Your task to perform on an android device: turn off airplane mode Image 0: 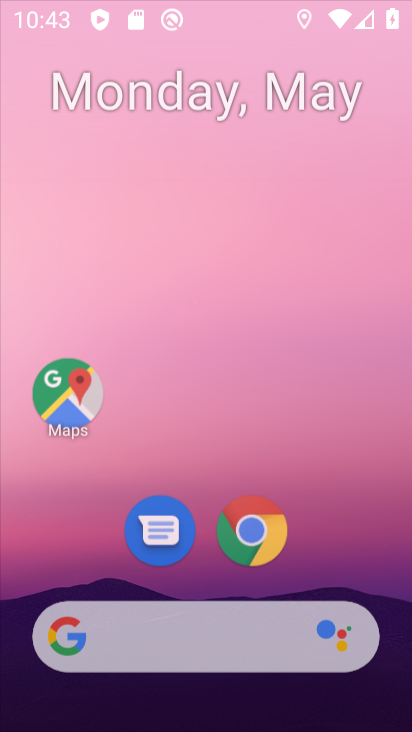
Step 0: press home button
Your task to perform on an android device: turn off airplane mode Image 1: 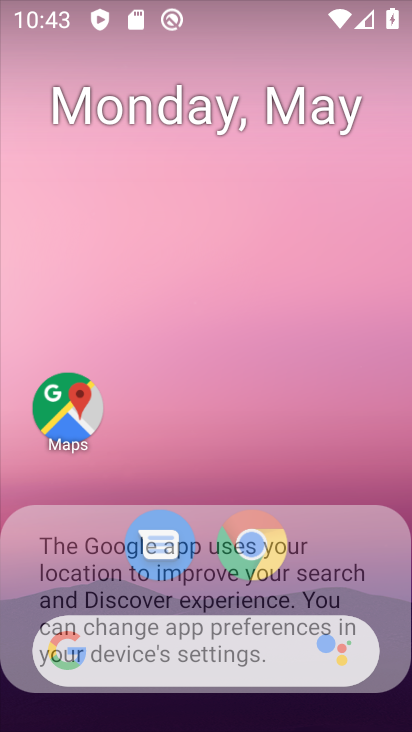
Step 1: drag from (223, 689) to (271, 56)
Your task to perform on an android device: turn off airplane mode Image 2: 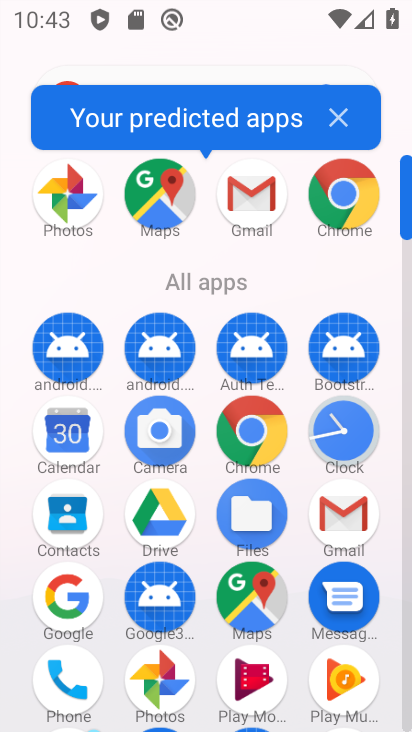
Step 2: drag from (200, 564) to (159, 356)
Your task to perform on an android device: turn off airplane mode Image 3: 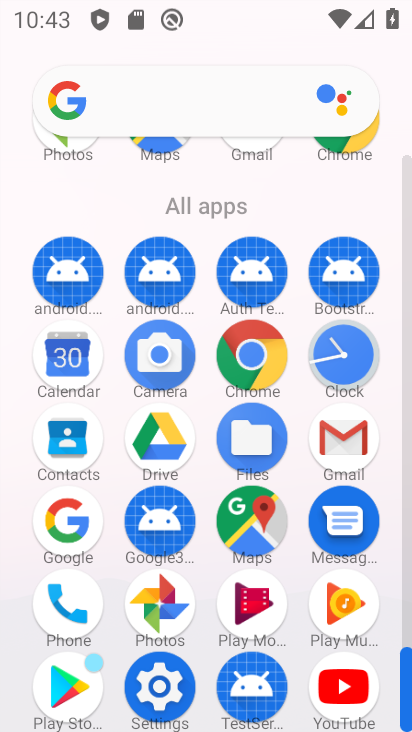
Step 3: click (171, 674)
Your task to perform on an android device: turn off airplane mode Image 4: 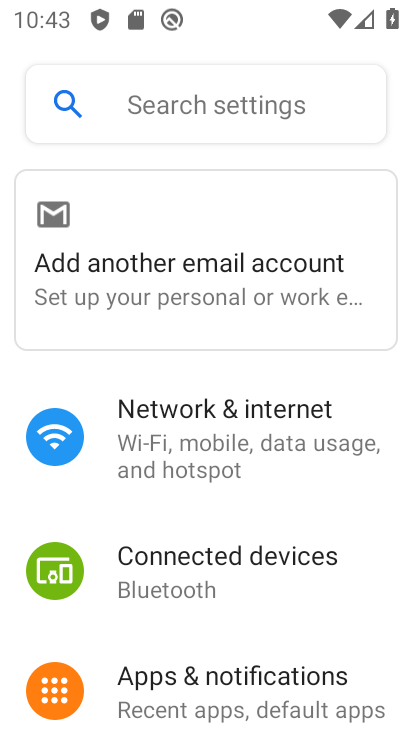
Step 4: click (204, 461)
Your task to perform on an android device: turn off airplane mode Image 5: 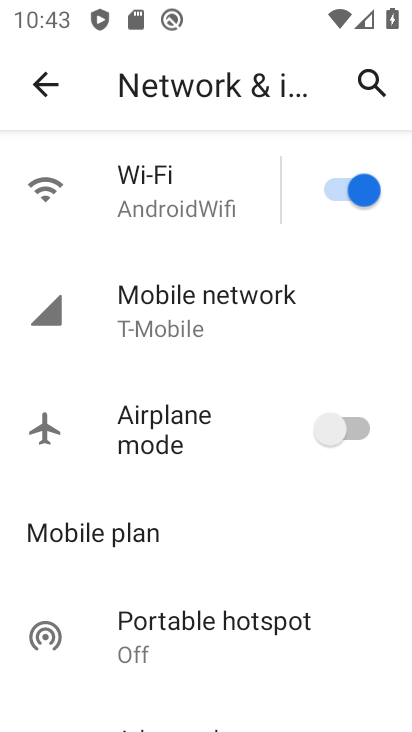
Step 5: click (337, 424)
Your task to perform on an android device: turn off airplane mode Image 6: 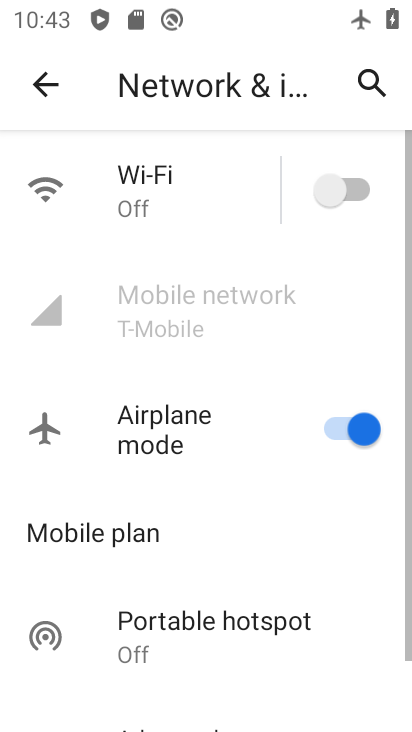
Step 6: click (337, 424)
Your task to perform on an android device: turn off airplane mode Image 7: 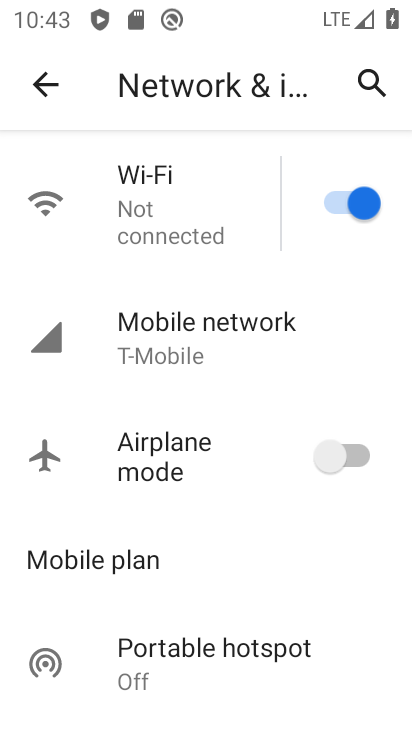
Step 7: task complete